Your task to perform on an android device: turn off wifi Image 0: 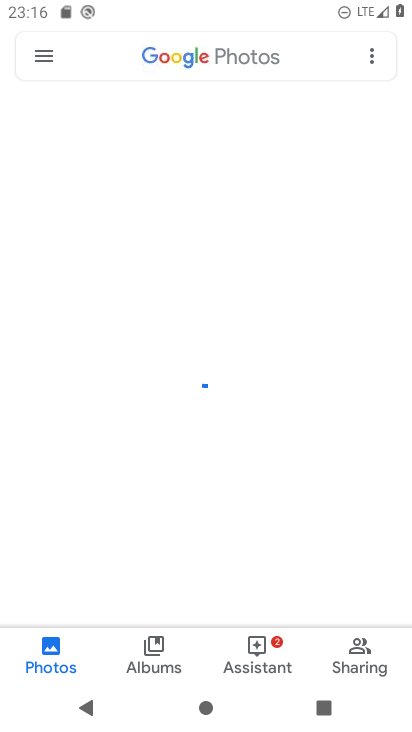
Step 0: press back button
Your task to perform on an android device: turn off wifi Image 1: 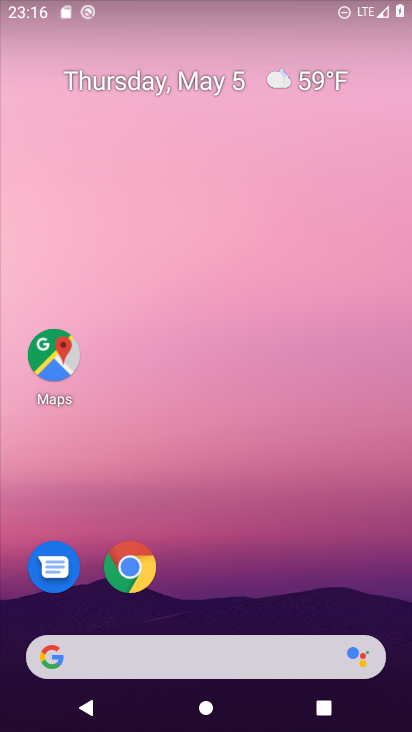
Step 1: task complete